Your task to perform on an android device: see creations saved in the google photos Image 0: 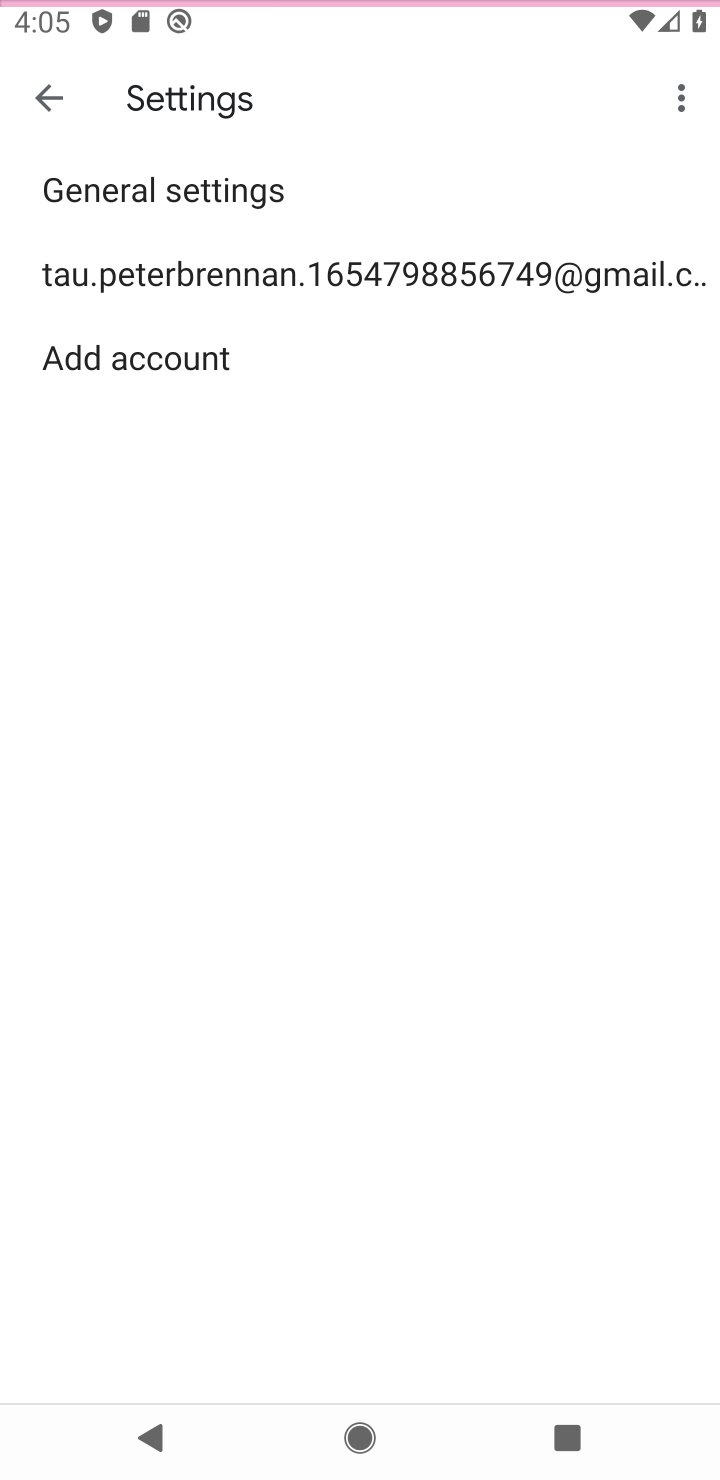
Step 0: press home button
Your task to perform on an android device: see creations saved in the google photos Image 1: 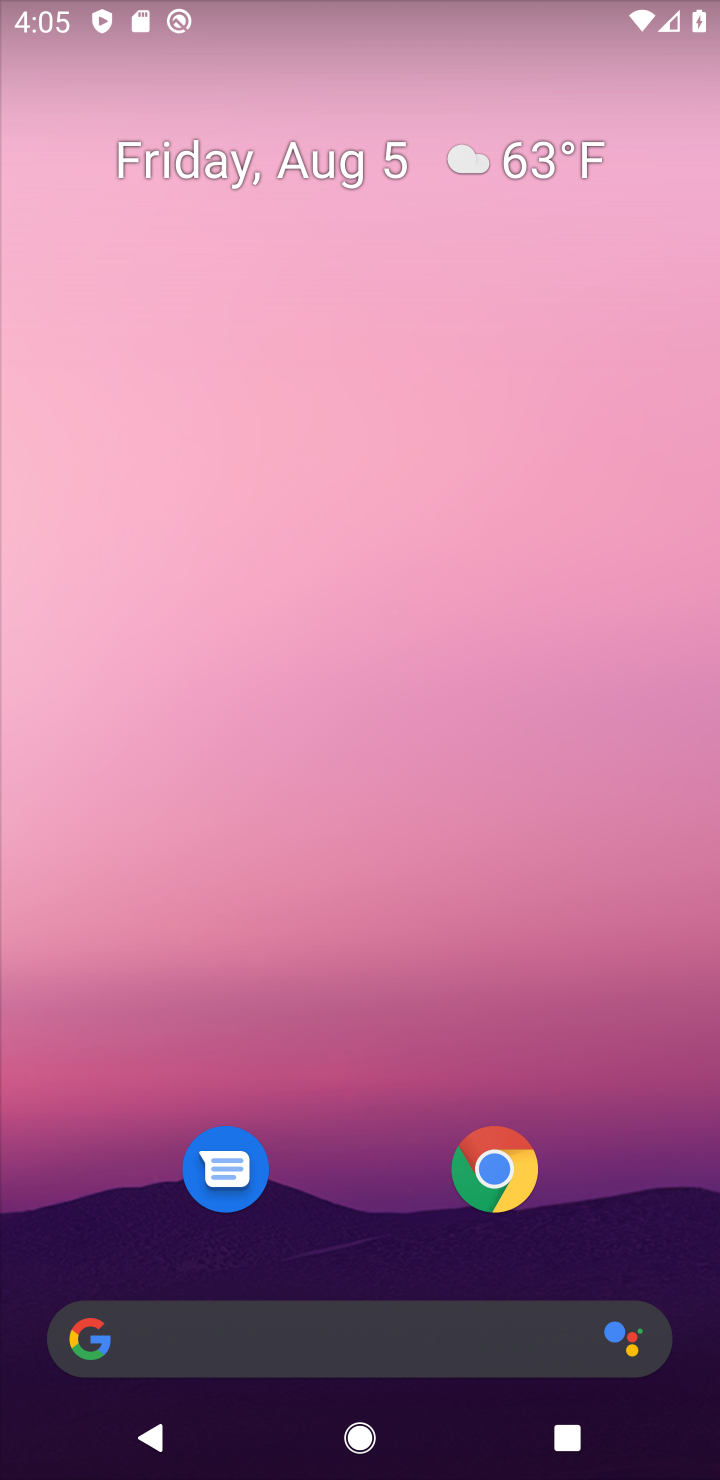
Step 1: drag from (371, 1304) to (358, 599)
Your task to perform on an android device: see creations saved in the google photos Image 2: 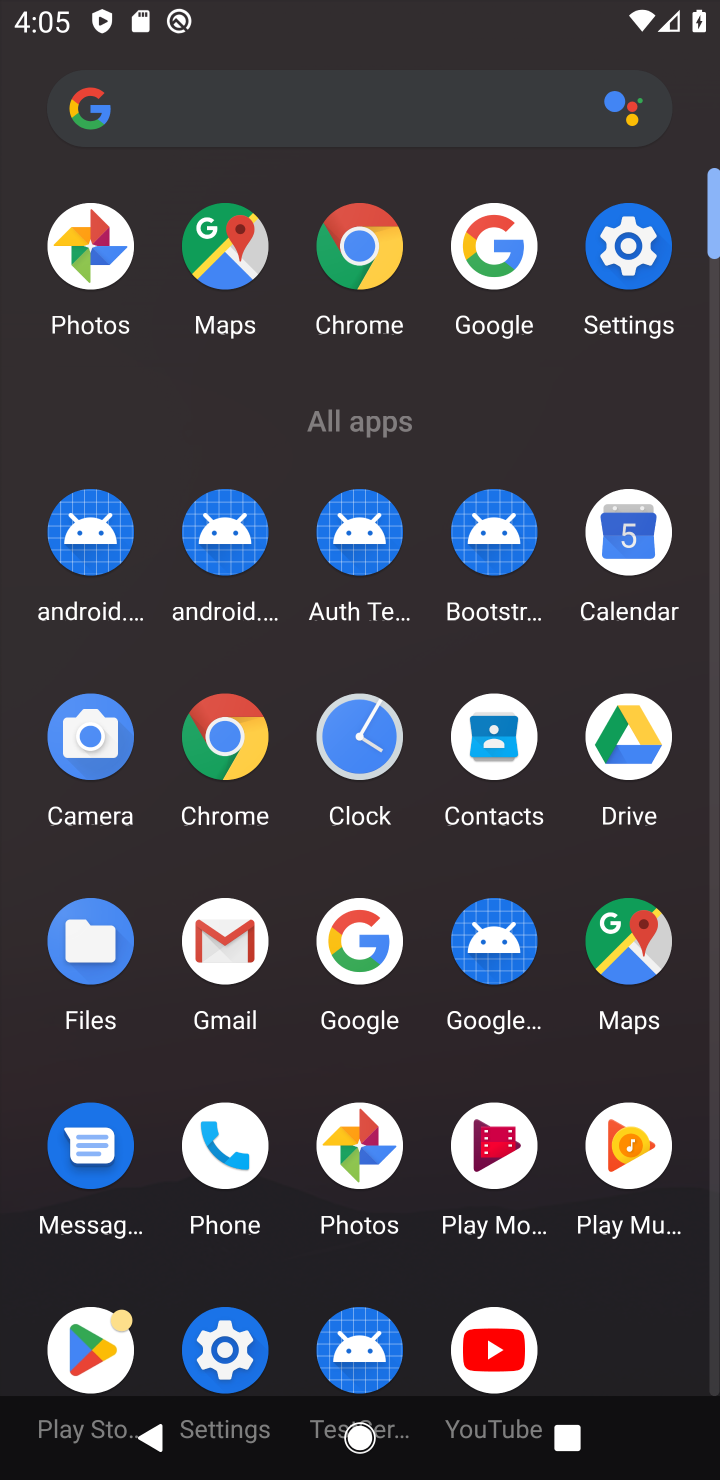
Step 2: click (344, 1144)
Your task to perform on an android device: see creations saved in the google photos Image 3: 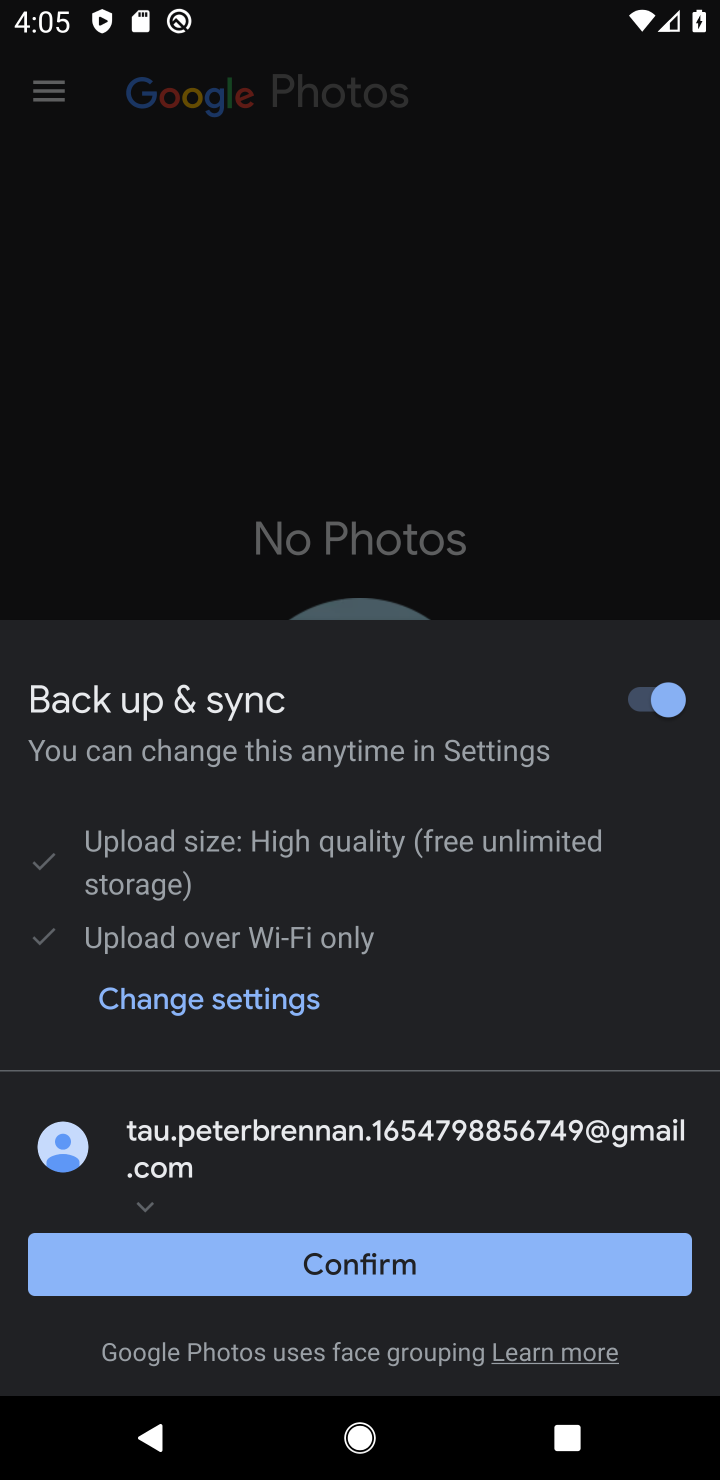
Step 3: click (372, 1261)
Your task to perform on an android device: see creations saved in the google photos Image 4: 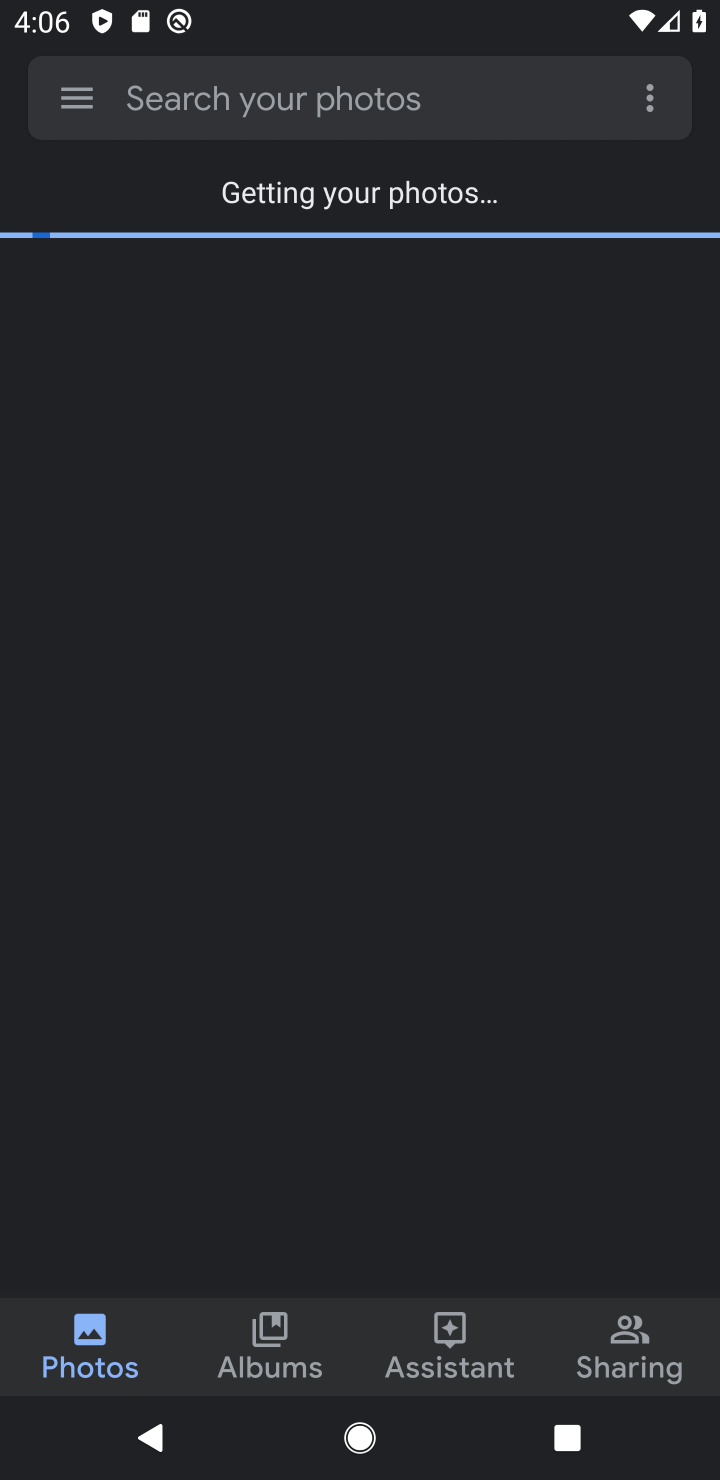
Step 4: click (255, 1350)
Your task to perform on an android device: see creations saved in the google photos Image 5: 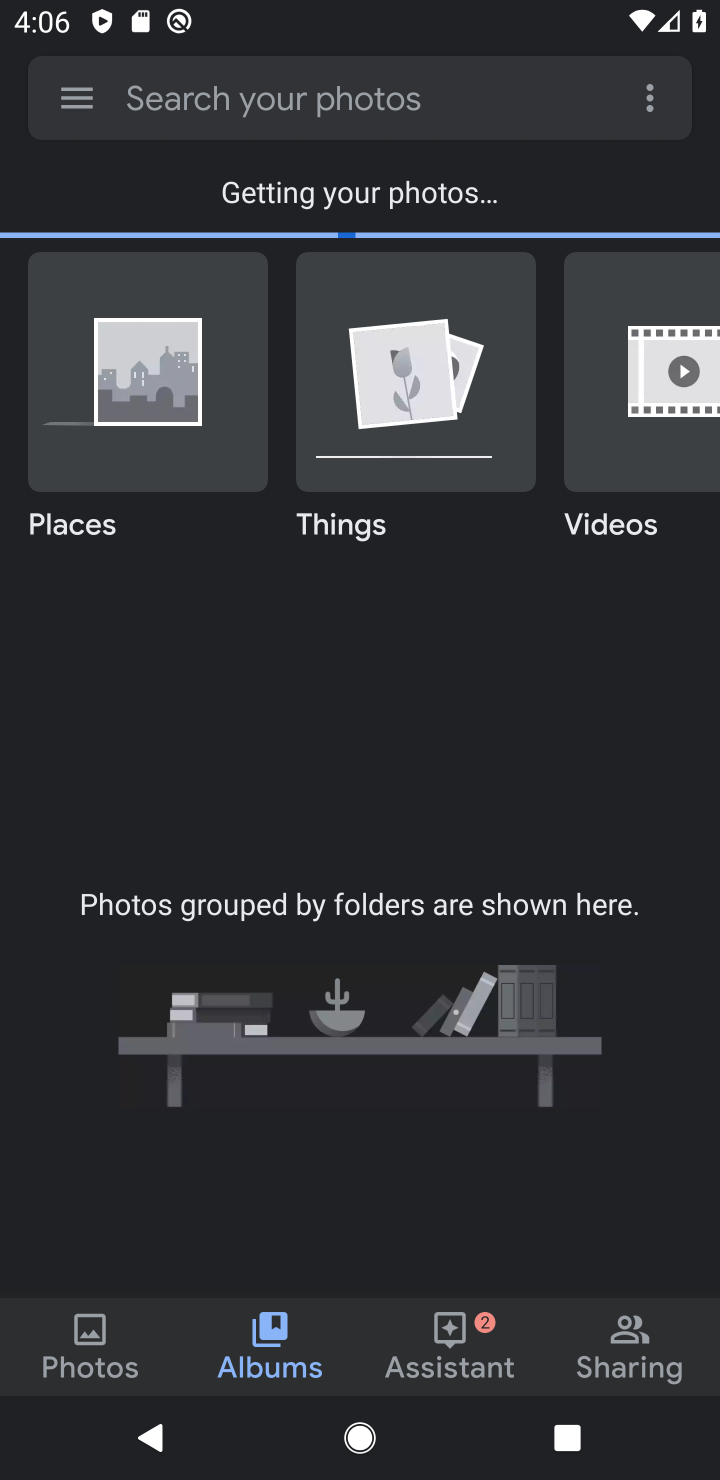
Step 5: click (105, 431)
Your task to perform on an android device: see creations saved in the google photos Image 6: 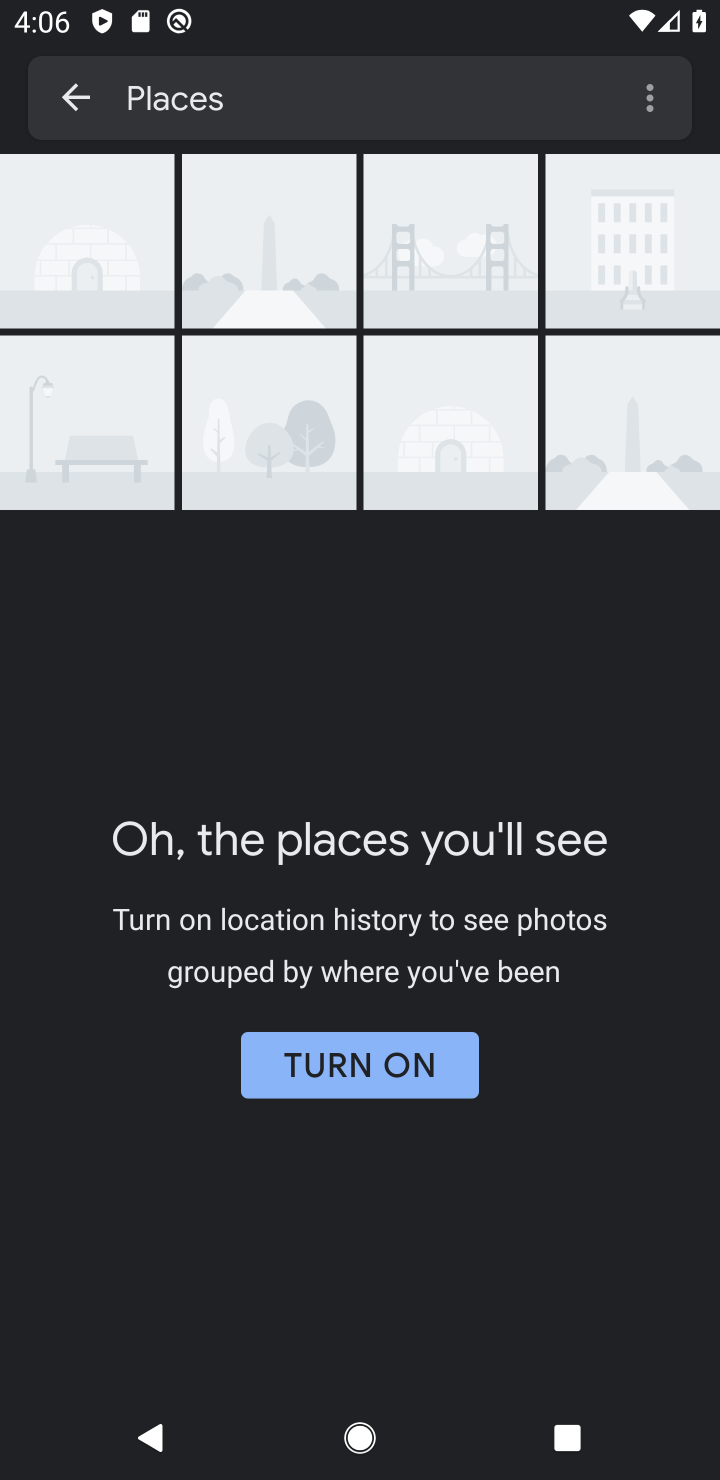
Step 6: task complete